Your task to perform on an android device: Go to battery settings Image 0: 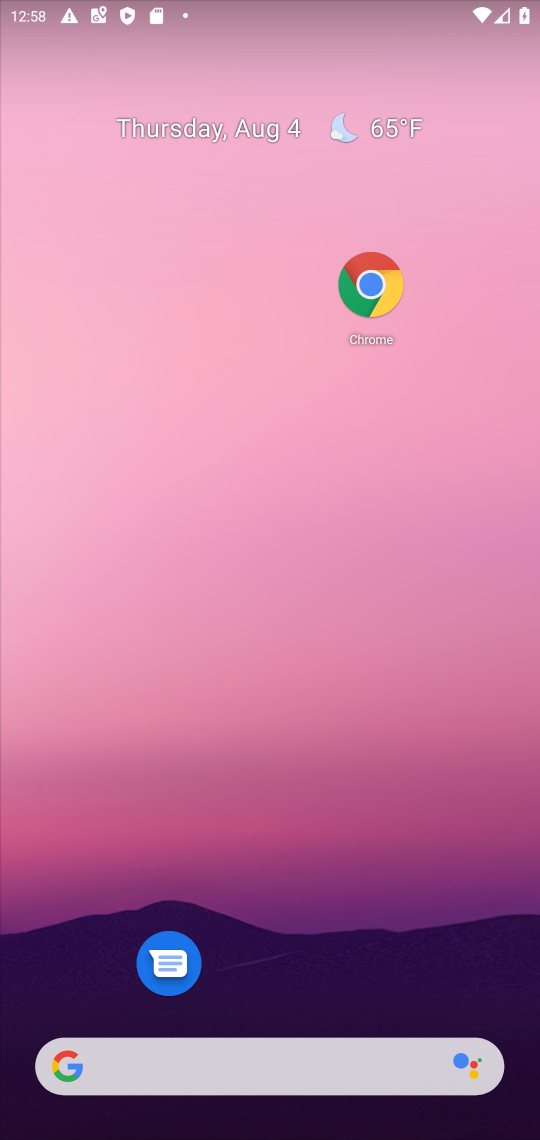
Step 0: press home button
Your task to perform on an android device: Go to battery settings Image 1: 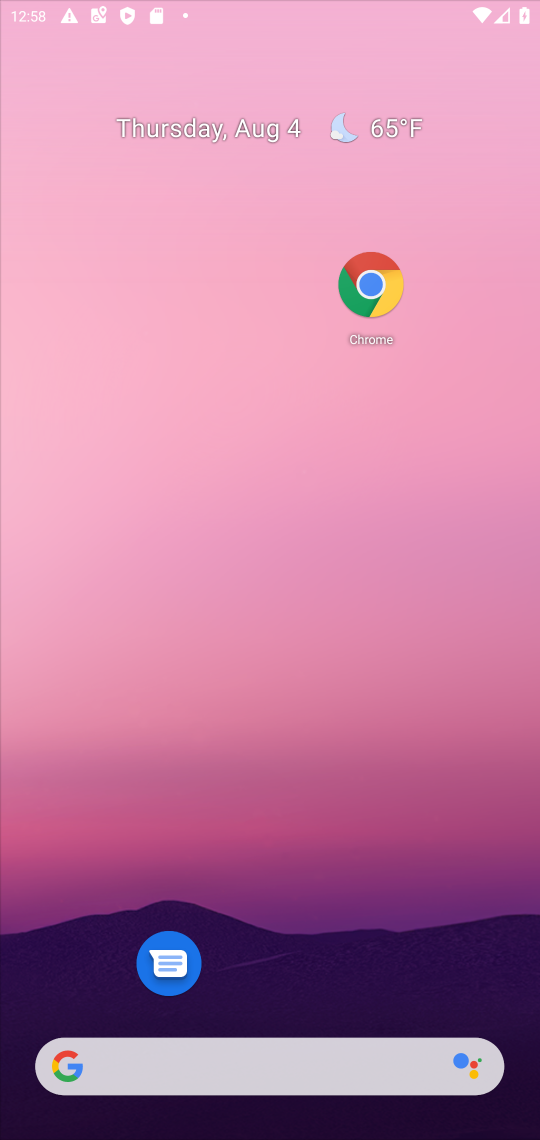
Step 1: drag from (249, 1011) to (258, 382)
Your task to perform on an android device: Go to battery settings Image 2: 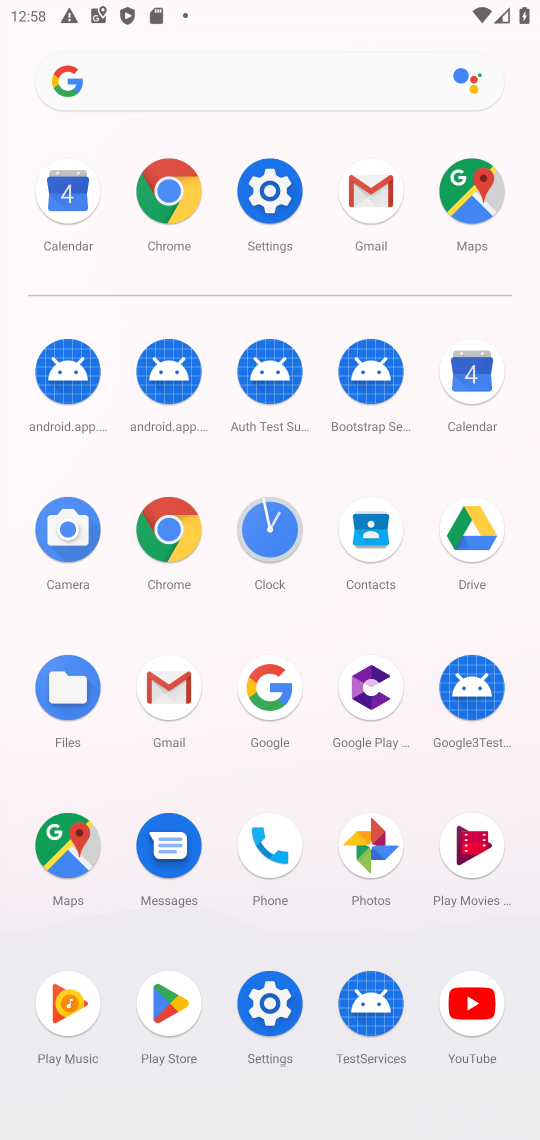
Step 2: click (273, 185)
Your task to perform on an android device: Go to battery settings Image 3: 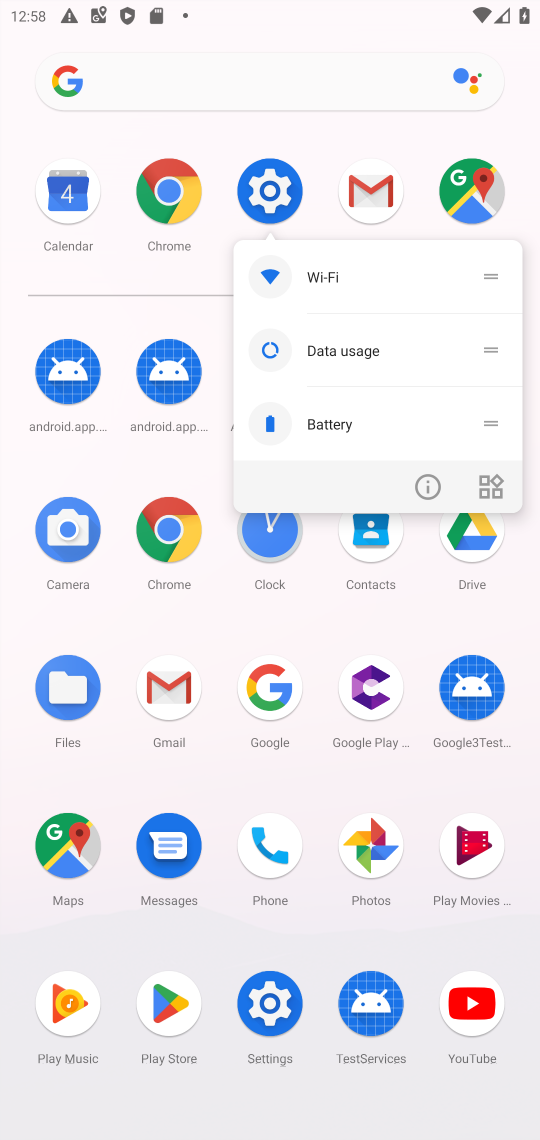
Step 3: click (273, 185)
Your task to perform on an android device: Go to battery settings Image 4: 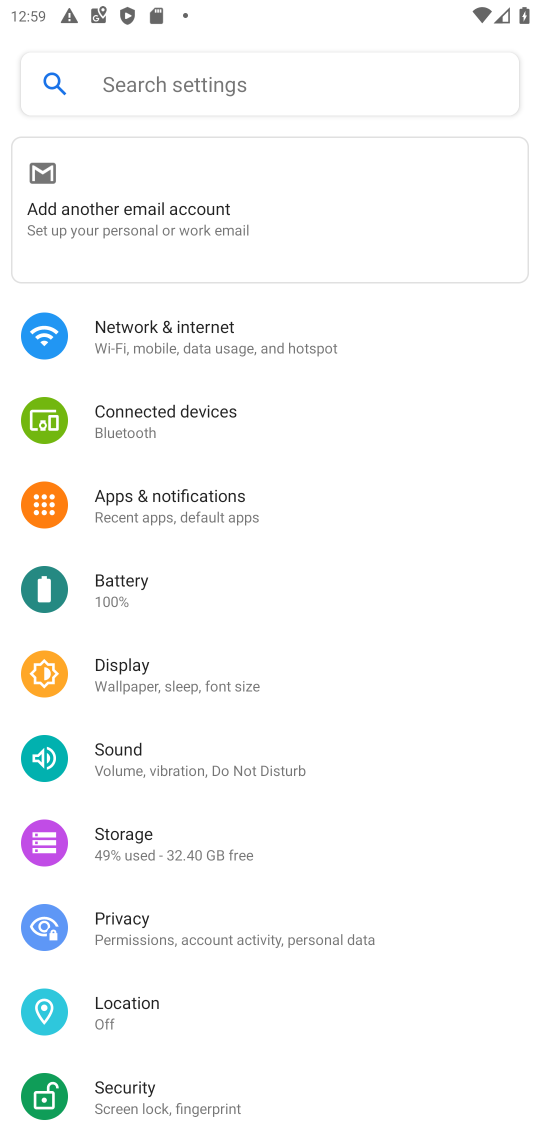
Step 4: click (149, 570)
Your task to perform on an android device: Go to battery settings Image 5: 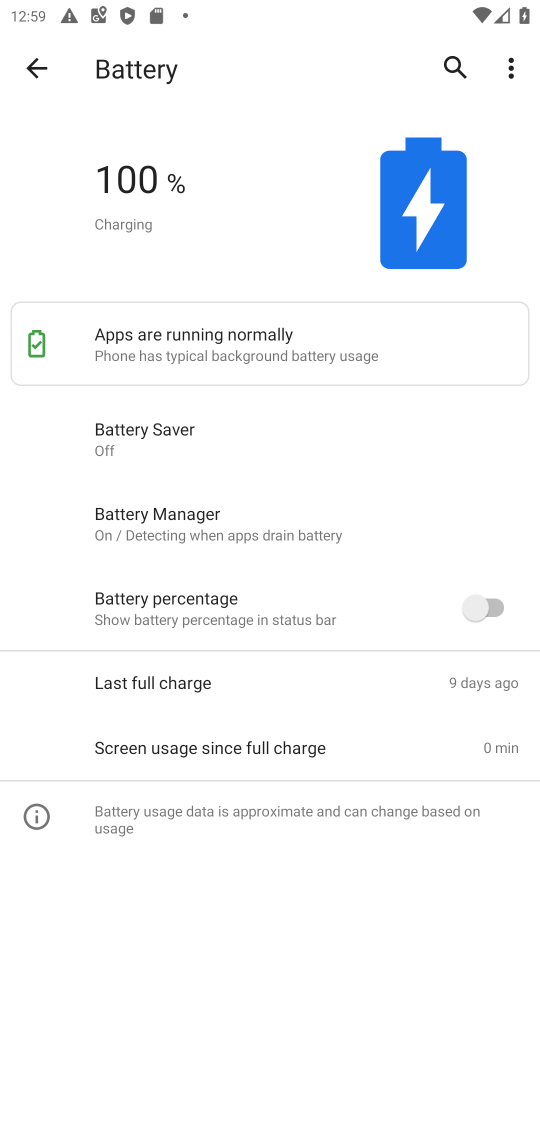
Step 5: task complete